Your task to perform on an android device: snooze an email in the gmail app Image 0: 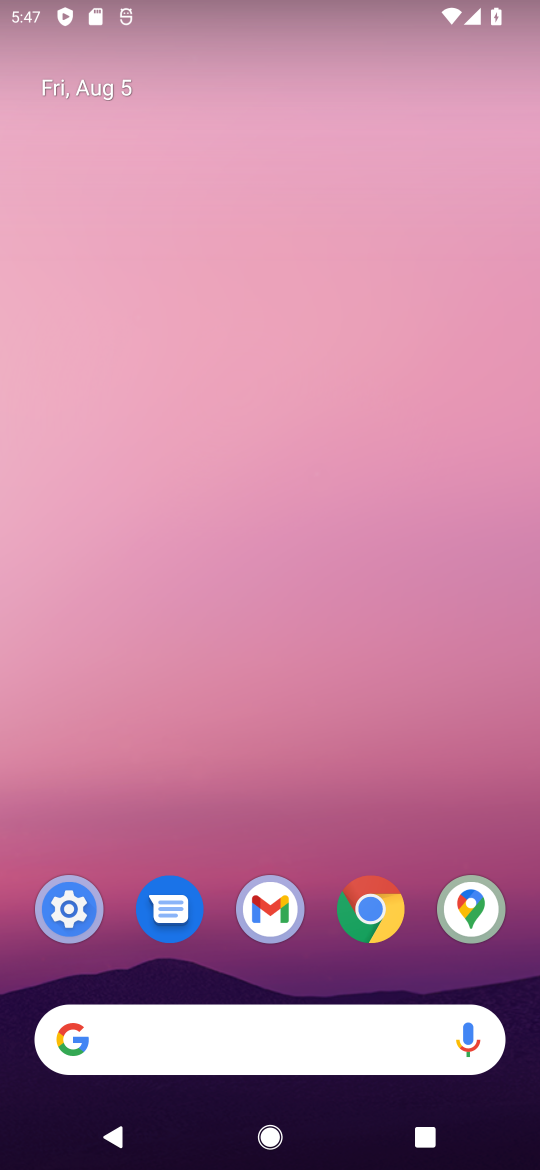
Step 0: press home button
Your task to perform on an android device: snooze an email in the gmail app Image 1: 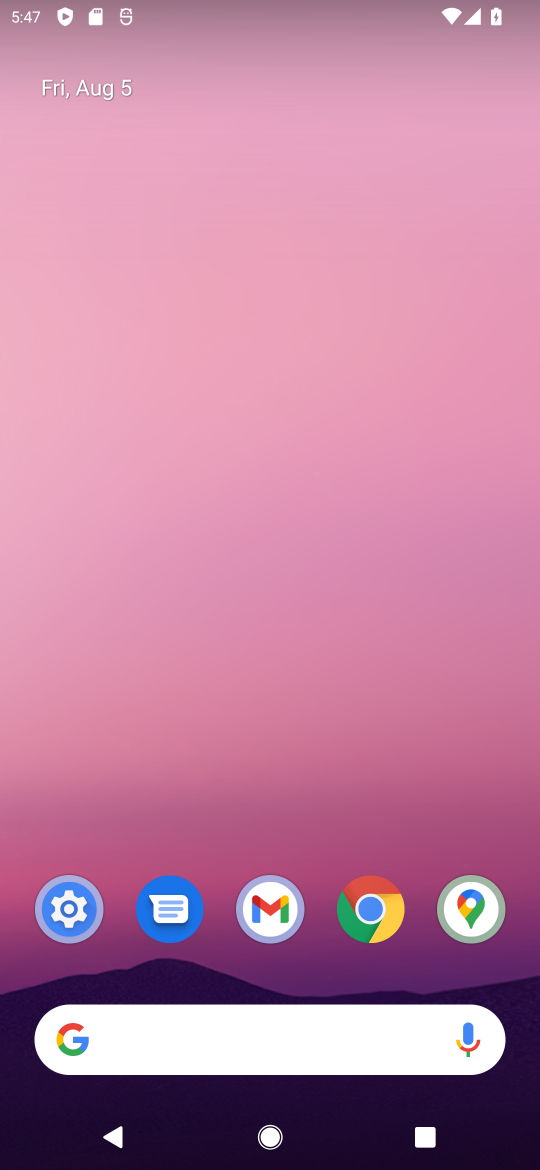
Step 1: drag from (335, 818) to (272, 186)
Your task to perform on an android device: snooze an email in the gmail app Image 2: 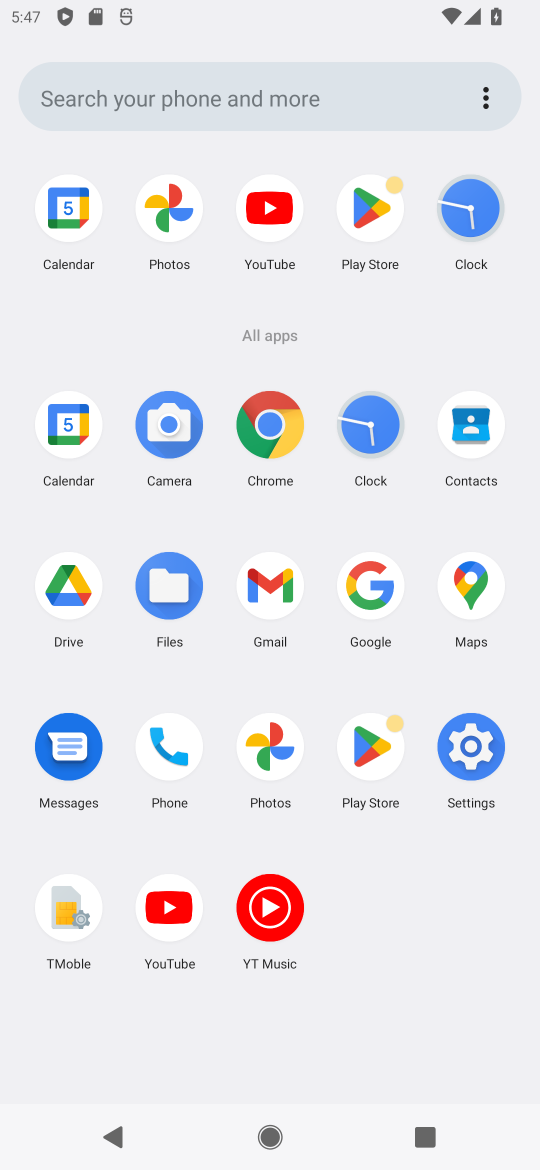
Step 2: click (280, 579)
Your task to perform on an android device: snooze an email in the gmail app Image 3: 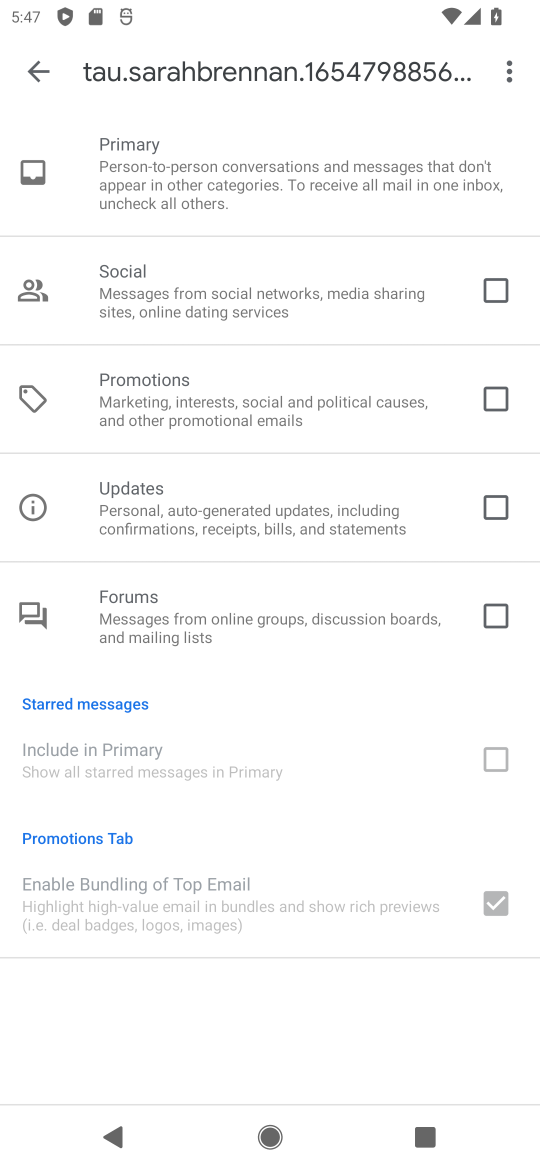
Step 3: click (26, 60)
Your task to perform on an android device: snooze an email in the gmail app Image 4: 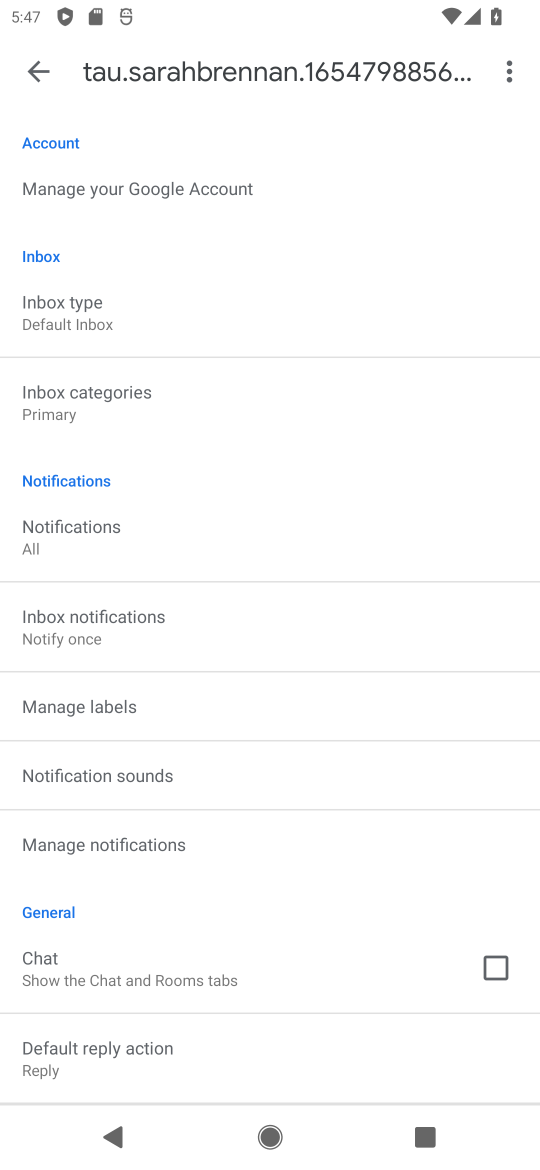
Step 4: click (31, 70)
Your task to perform on an android device: snooze an email in the gmail app Image 5: 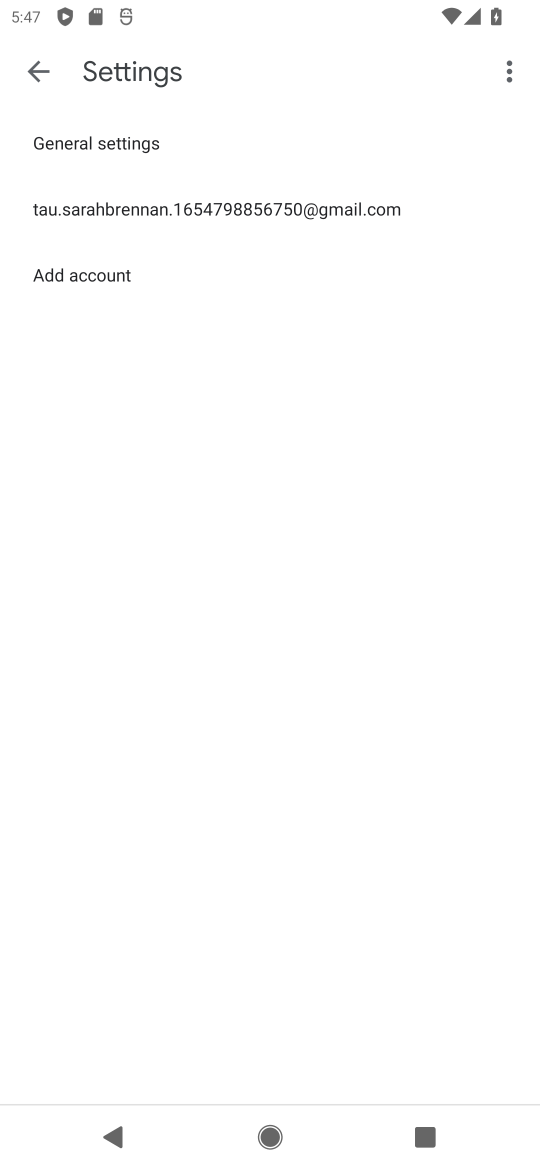
Step 5: click (31, 70)
Your task to perform on an android device: snooze an email in the gmail app Image 6: 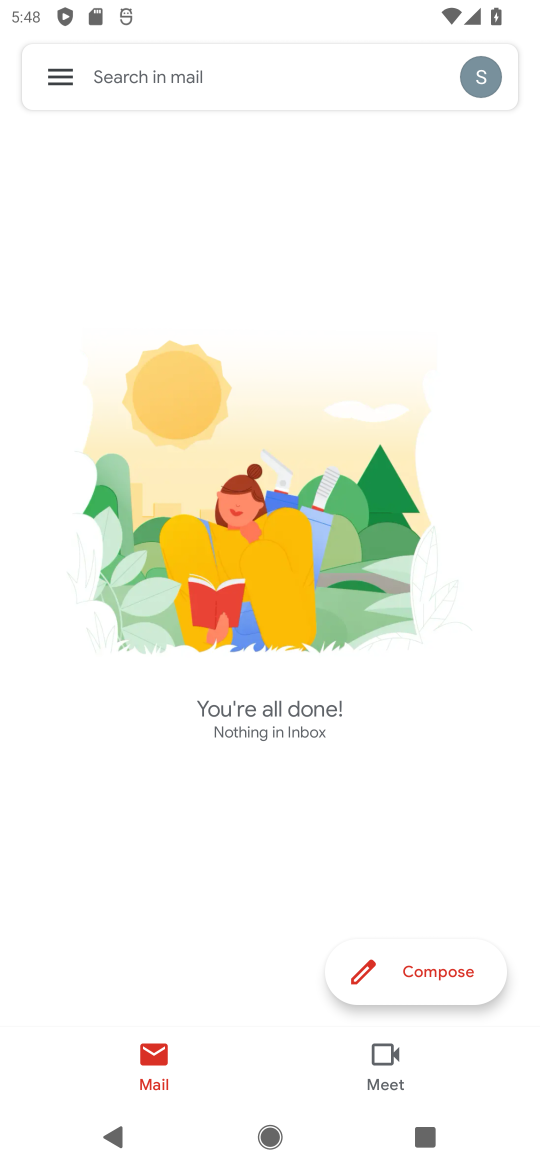
Step 6: click (46, 73)
Your task to perform on an android device: snooze an email in the gmail app Image 7: 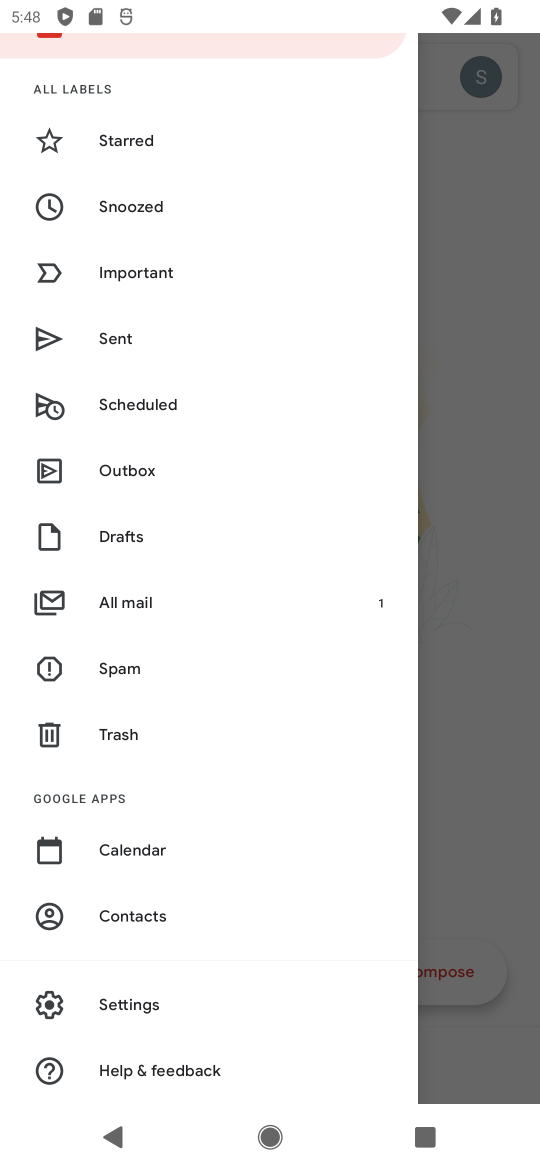
Step 7: click (132, 602)
Your task to perform on an android device: snooze an email in the gmail app Image 8: 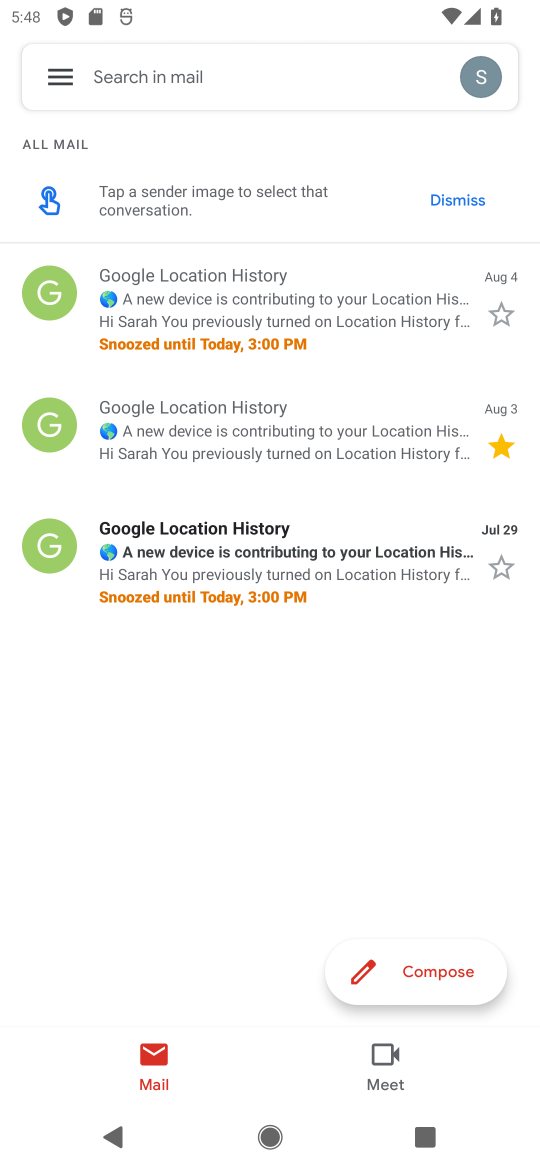
Step 8: click (343, 316)
Your task to perform on an android device: snooze an email in the gmail app Image 9: 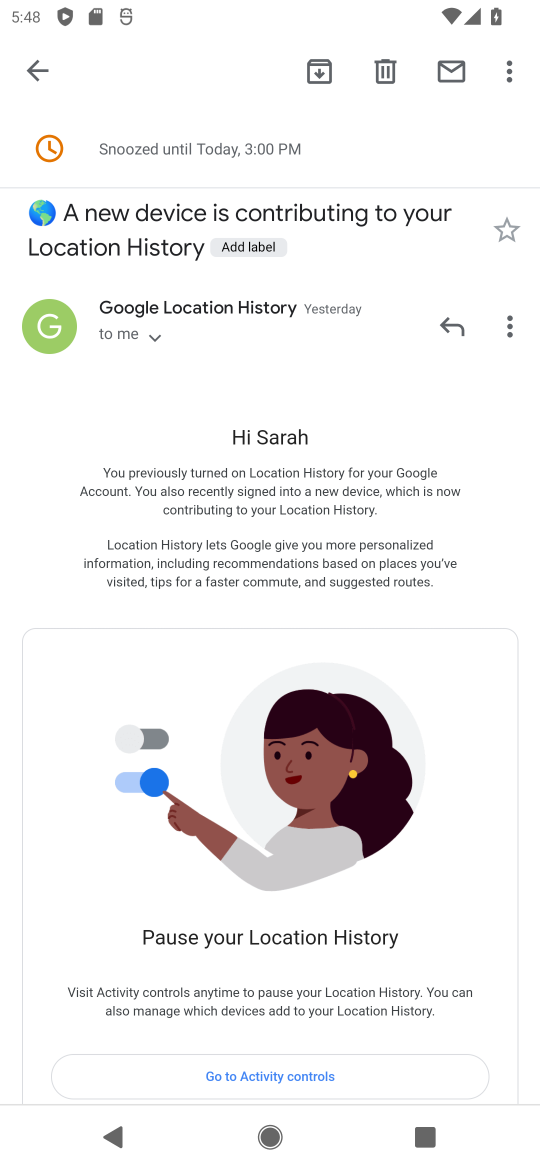
Step 9: click (493, 63)
Your task to perform on an android device: snooze an email in the gmail app Image 10: 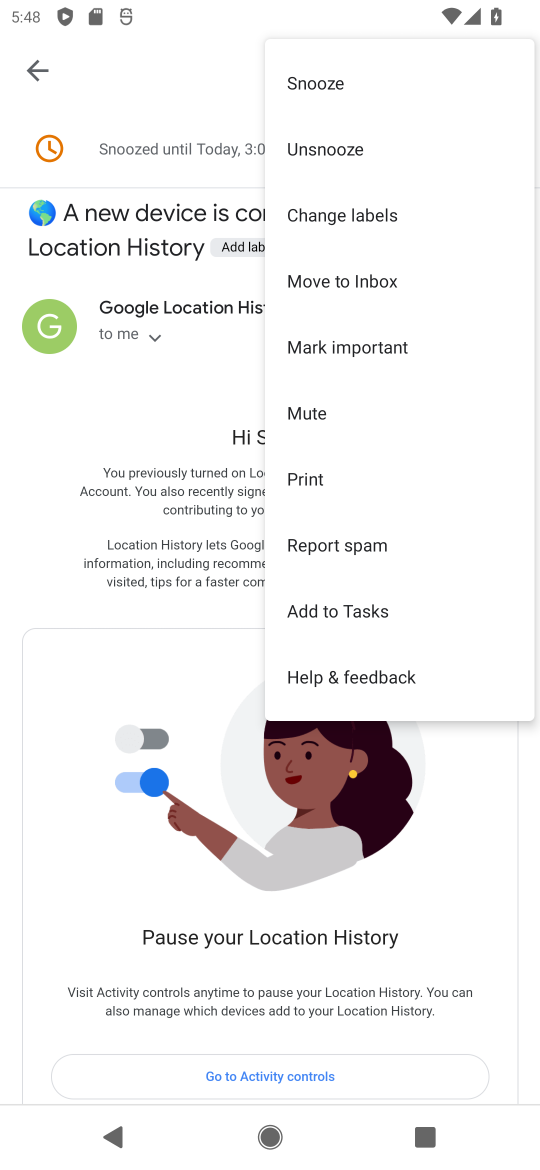
Step 10: click (327, 86)
Your task to perform on an android device: snooze an email in the gmail app Image 11: 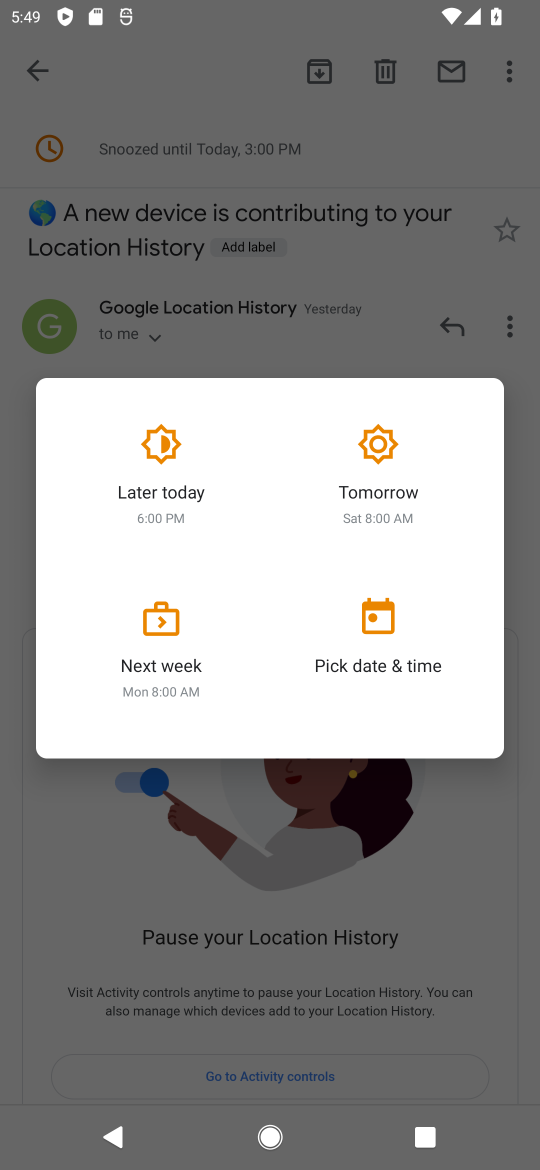
Step 11: click (141, 630)
Your task to perform on an android device: snooze an email in the gmail app Image 12: 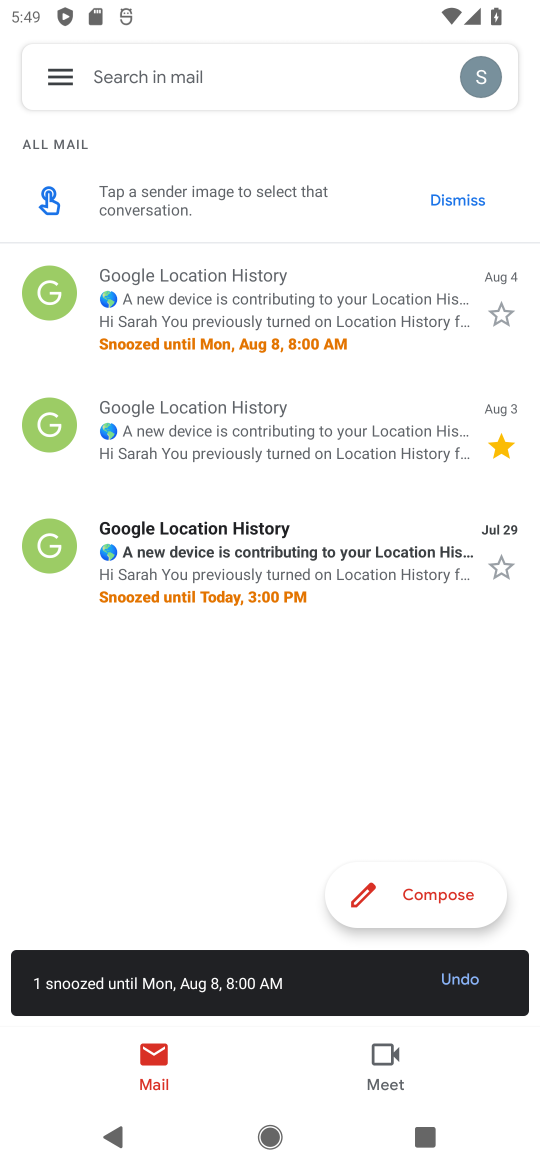
Step 12: task complete